Your task to perform on an android device: What's on my calendar tomorrow? Image 0: 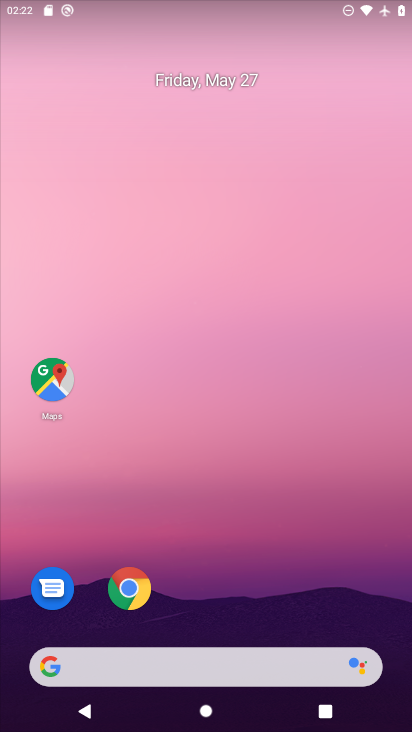
Step 0: press home button
Your task to perform on an android device: What's on my calendar tomorrow? Image 1: 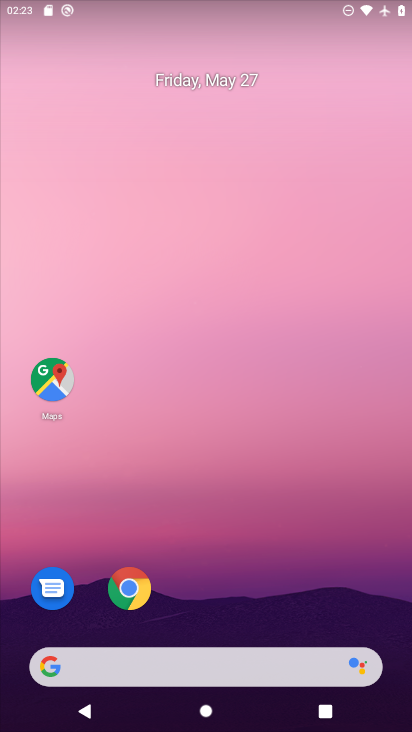
Step 1: drag from (337, 614) to (327, 73)
Your task to perform on an android device: What's on my calendar tomorrow? Image 2: 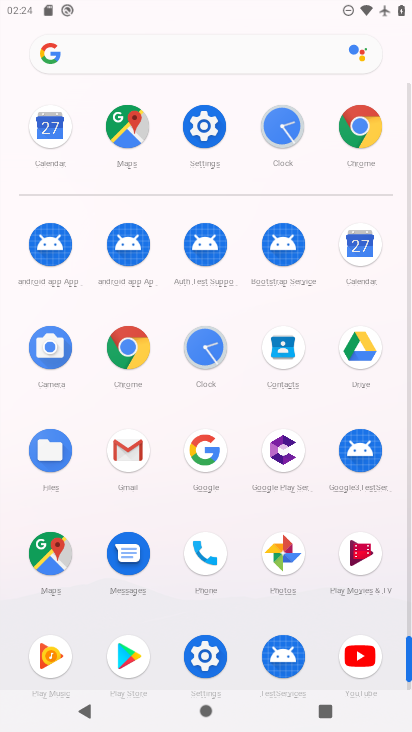
Step 2: click (365, 239)
Your task to perform on an android device: What's on my calendar tomorrow? Image 3: 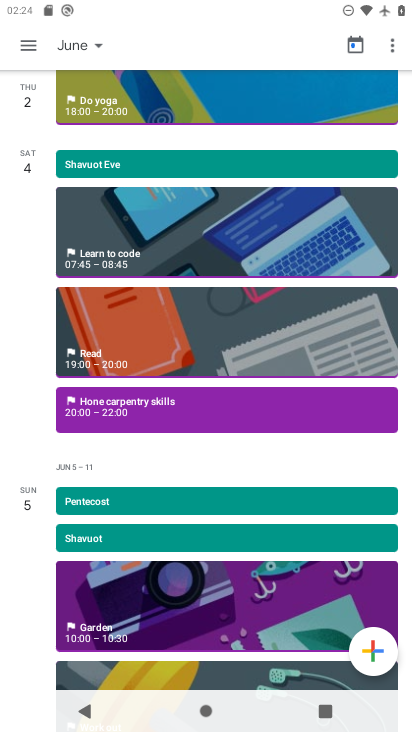
Step 3: click (30, 41)
Your task to perform on an android device: What's on my calendar tomorrow? Image 4: 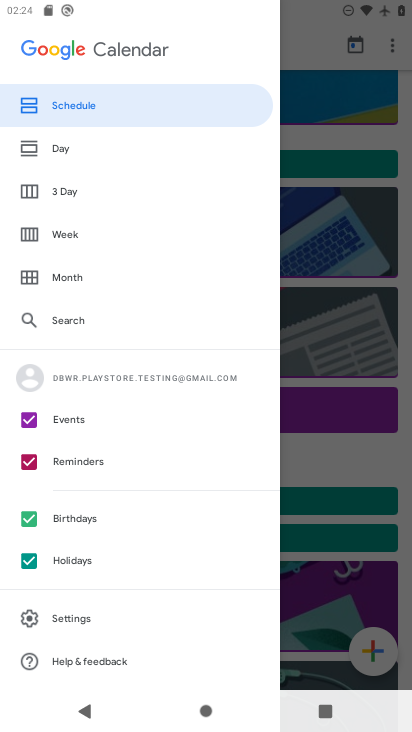
Step 4: click (58, 151)
Your task to perform on an android device: What's on my calendar tomorrow? Image 5: 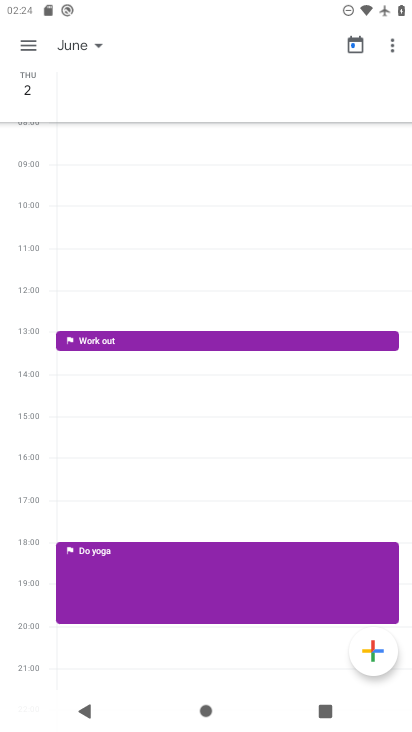
Step 5: click (97, 42)
Your task to perform on an android device: What's on my calendar tomorrow? Image 6: 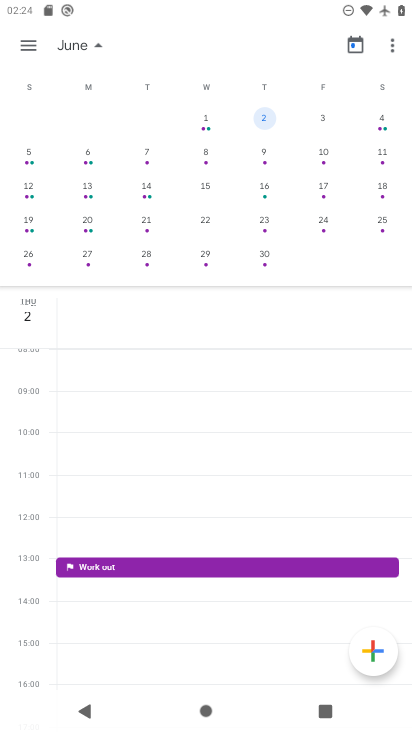
Step 6: drag from (36, 241) to (368, 187)
Your task to perform on an android device: What's on my calendar tomorrow? Image 7: 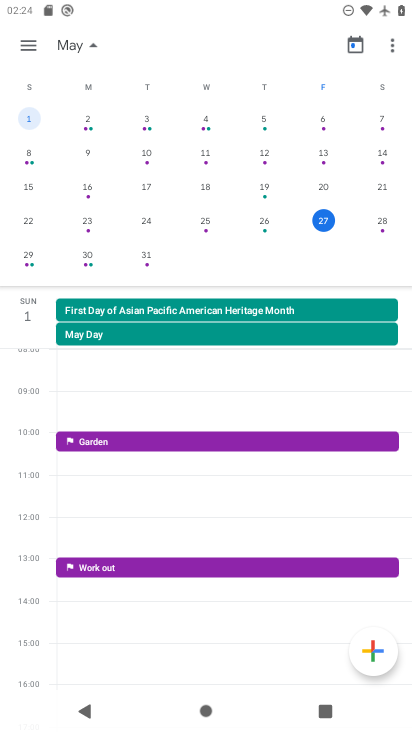
Step 7: click (384, 217)
Your task to perform on an android device: What's on my calendar tomorrow? Image 8: 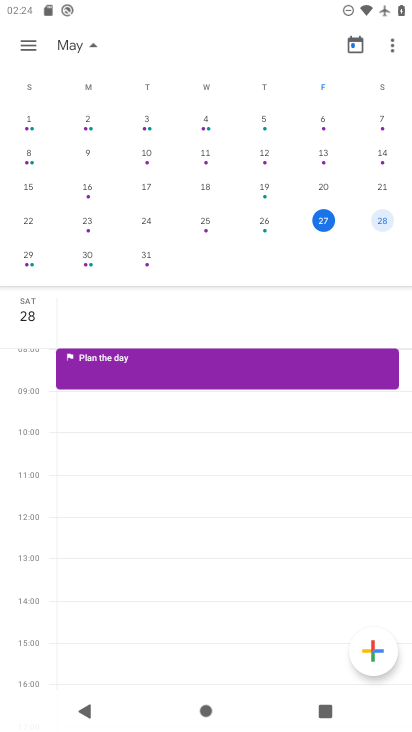
Step 8: task complete